Your task to perform on an android device: delete location history Image 0: 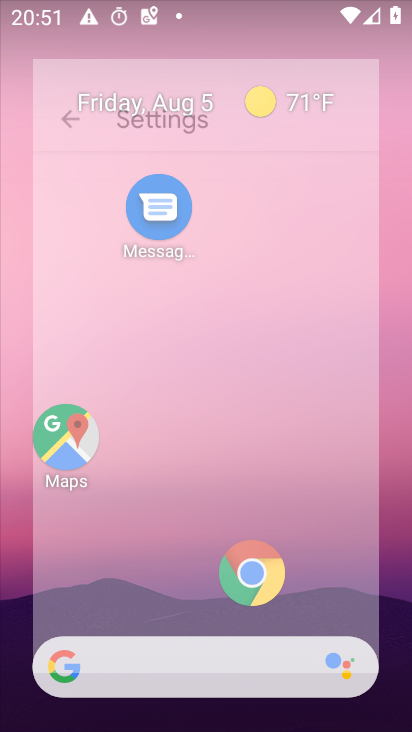
Step 0: press home button
Your task to perform on an android device: delete location history Image 1: 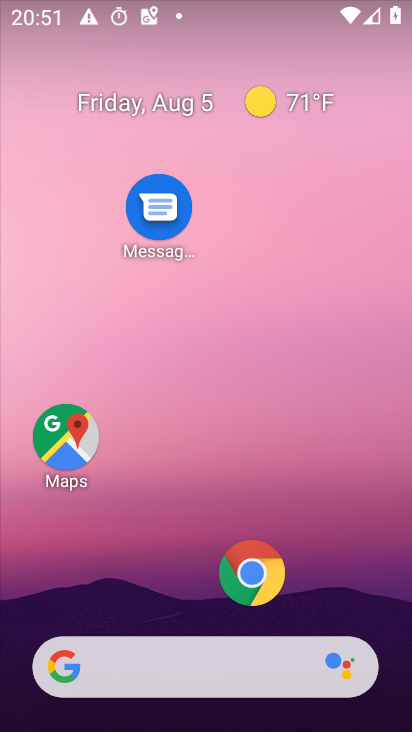
Step 1: drag from (196, 608) to (247, 18)
Your task to perform on an android device: delete location history Image 2: 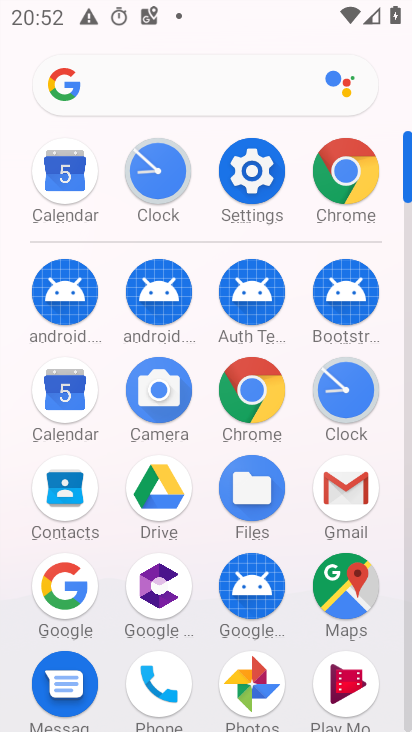
Step 2: click (343, 581)
Your task to perform on an android device: delete location history Image 3: 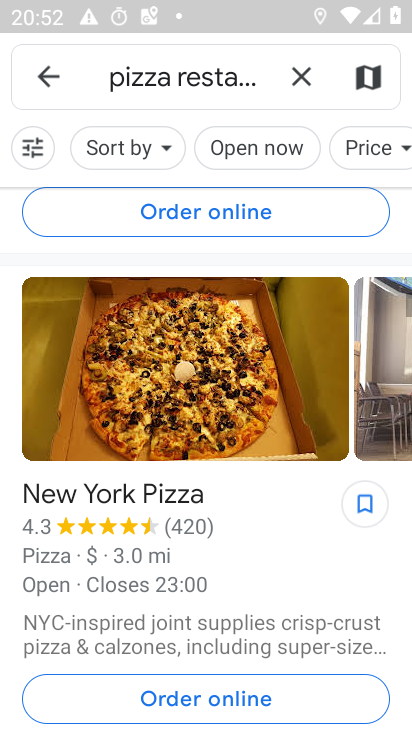
Step 3: click (50, 75)
Your task to perform on an android device: delete location history Image 4: 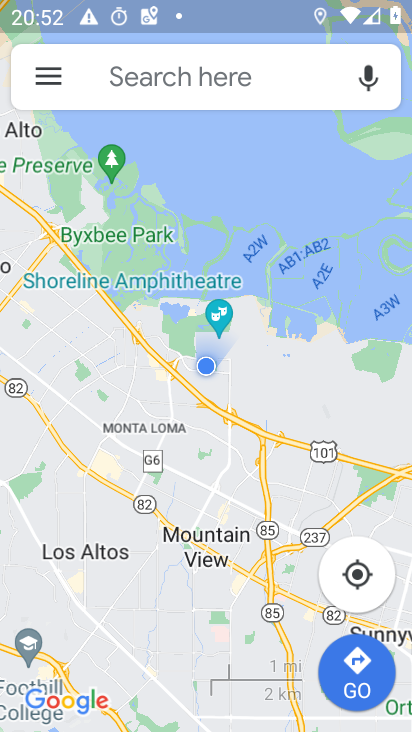
Step 4: click (45, 70)
Your task to perform on an android device: delete location history Image 5: 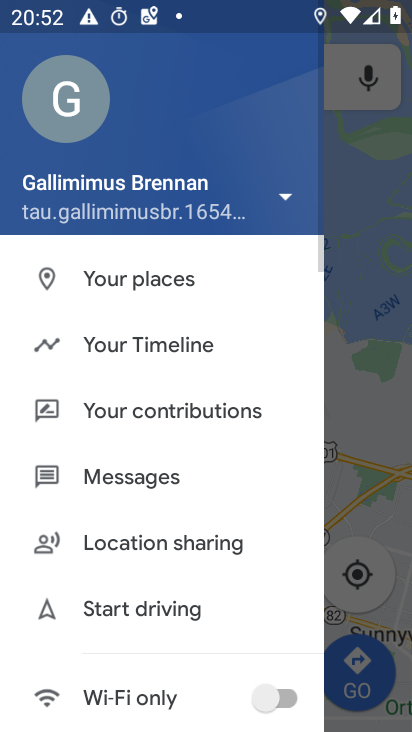
Step 5: click (135, 348)
Your task to perform on an android device: delete location history Image 6: 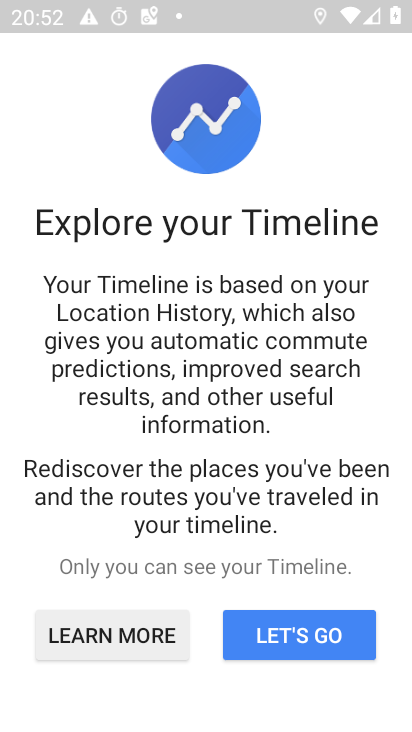
Step 6: click (308, 627)
Your task to perform on an android device: delete location history Image 7: 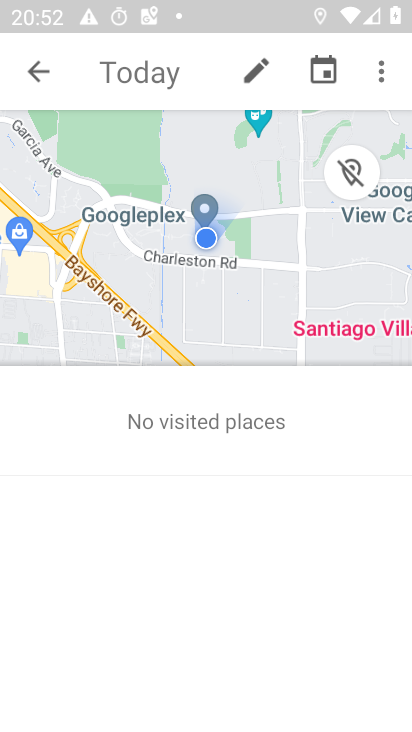
Step 7: click (380, 72)
Your task to perform on an android device: delete location history Image 8: 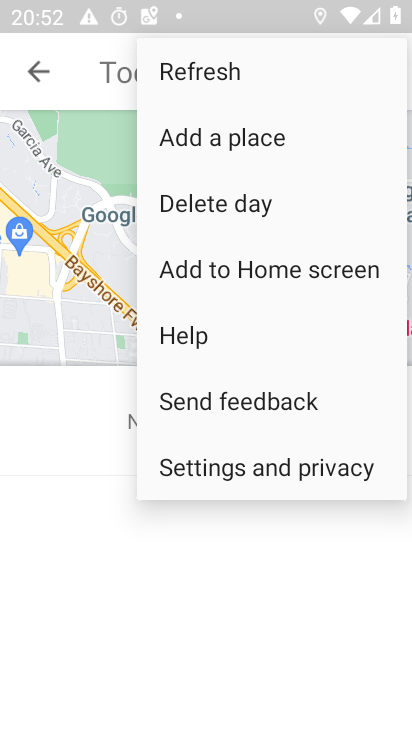
Step 8: click (286, 471)
Your task to perform on an android device: delete location history Image 9: 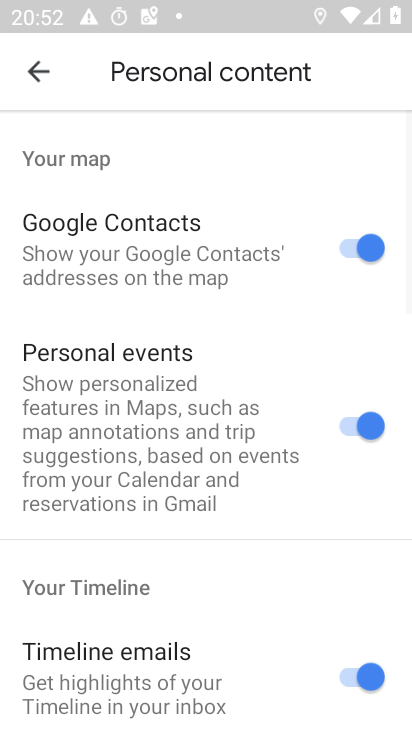
Step 9: drag from (238, 633) to (258, 142)
Your task to perform on an android device: delete location history Image 10: 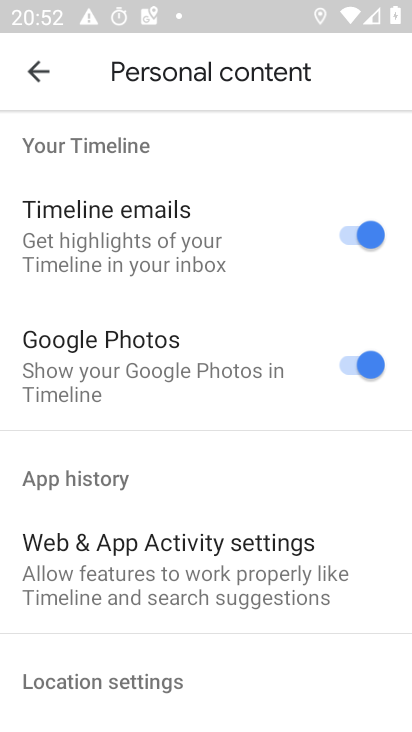
Step 10: drag from (213, 669) to (289, 196)
Your task to perform on an android device: delete location history Image 11: 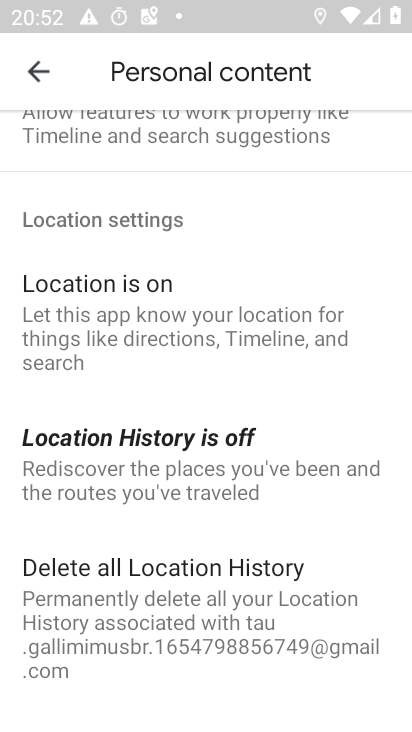
Step 11: click (218, 606)
Your task to perform on an android device: delete location history Image 12: 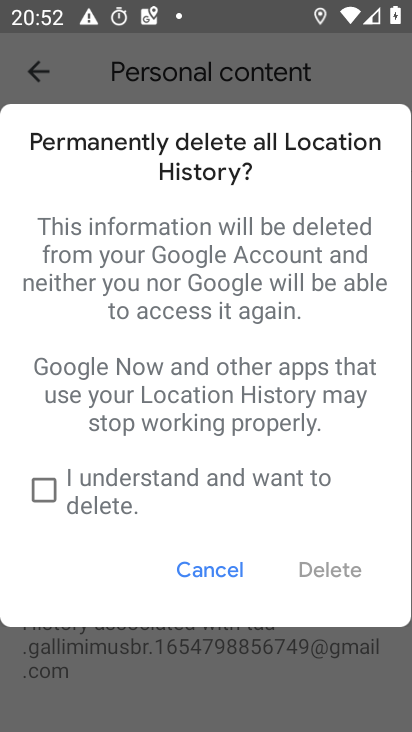
Step 12: click (37, 490)
Your task to perform on an android device: delete location history Image 13: 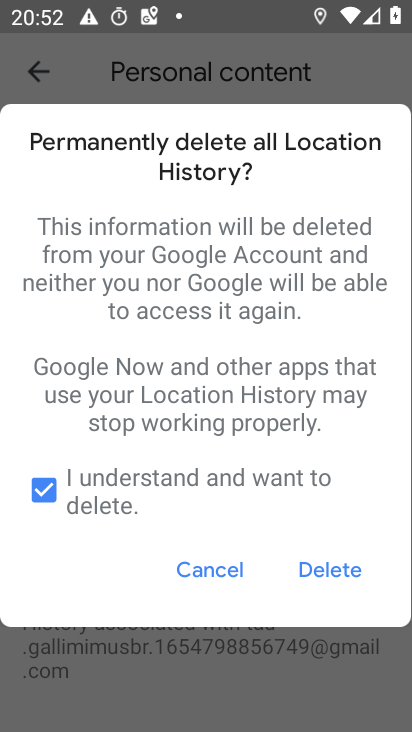
Step 13: click (332, 569)
Your task to perform on an android device: delete location history Image 14: 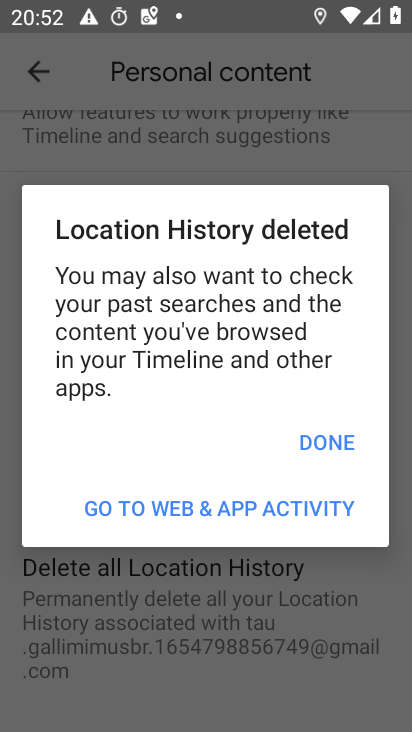
Step 14: click (323, 435)
Your task to perform on an android device: delete location history Image 15: 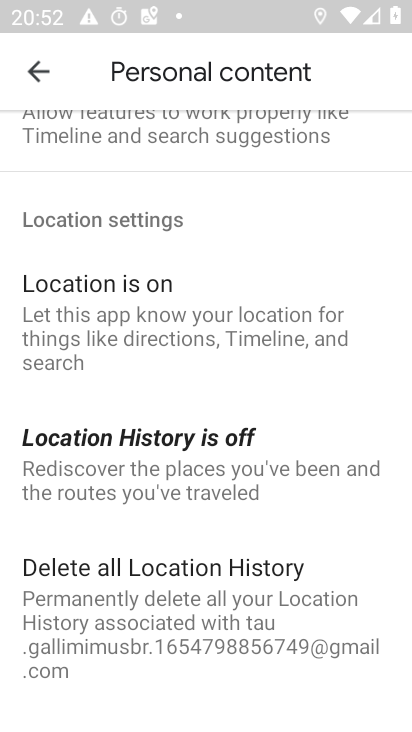
Step 15: task complete